Your task to perform on an android device: Search for pizza restaurants on Maps Image 0: 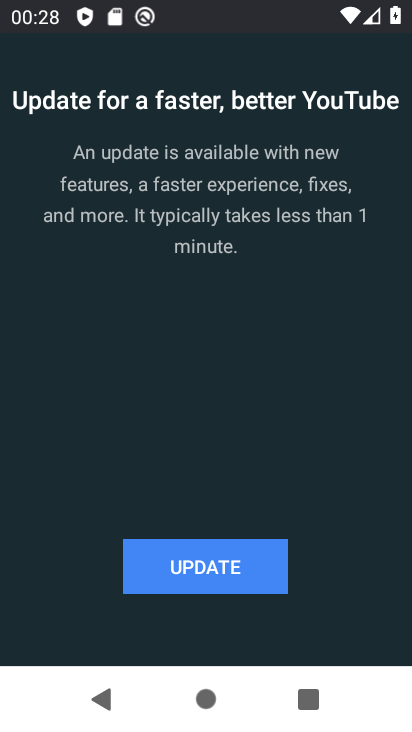
Step 0: press home button
Your task to perform on an android device: Search for pizza restaurants on Maps Image 1: 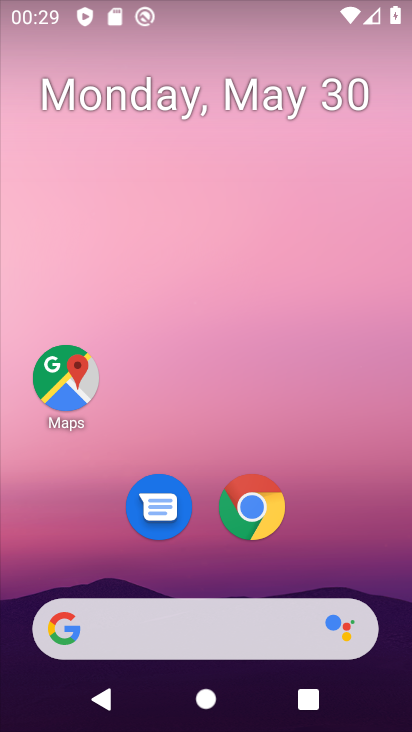
Step 1: click (67, 367)
Your task to perform on an android device: Search for pizza restaurants on Maps Image 2: 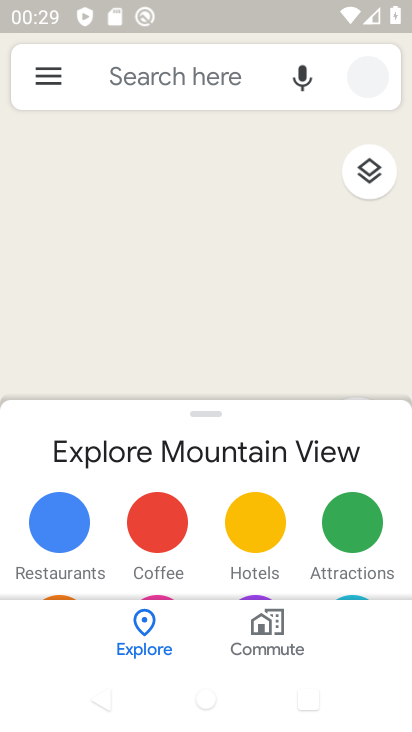
Step 2: click (167, 77)
Your task to perform on an android device: Search for pizza restaurants on Maps Image 3: 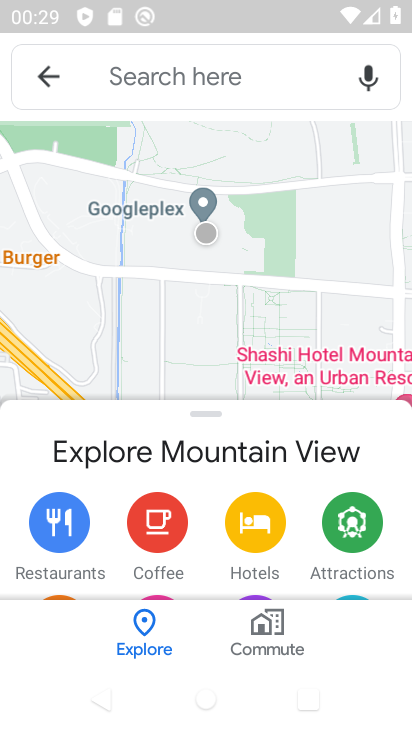
Step 3: click (151, 72)
Your task to perform on an android device: Search for pizza restaurants on Maps Image 4: 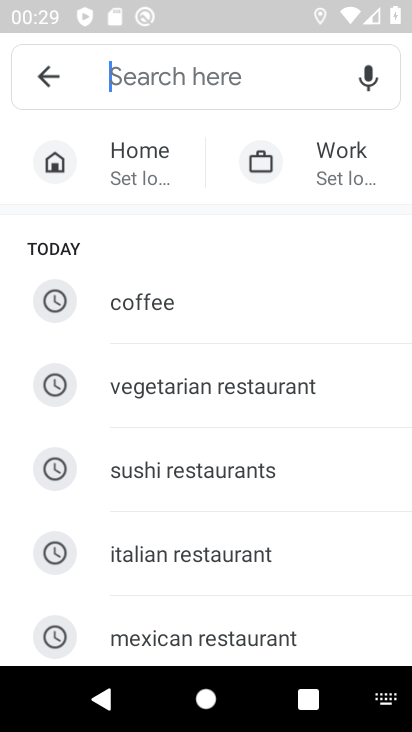
Step 4: drag from (206, 572) to (249, 264)
Your task to perform on an android device: Search for pizza restaurants on Maps Image 5: 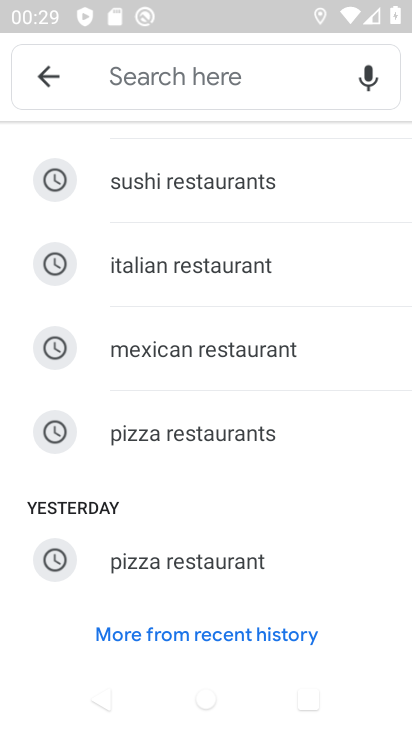
Step 5: click (198, 432)
Your task to perform on an android device: Search for pizza restaurants on Maps Image 6: 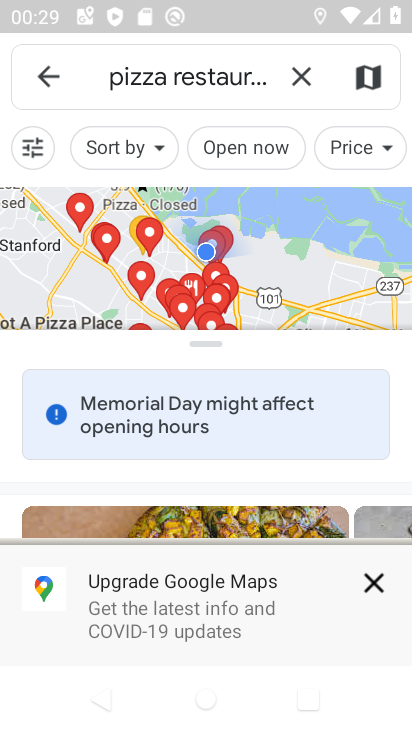
Step 6: click (377, 579)
Your task to perform on an android device: Search for pizza restaurants on Maps Image 7: 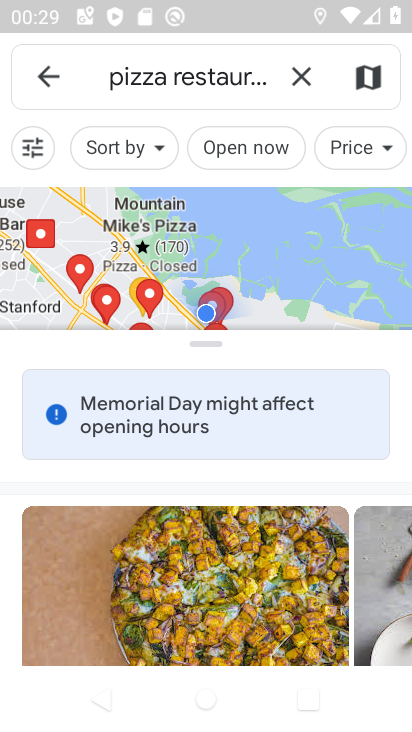
Step 7: task complete